Your task to perform on an android device: Go to display settings Image 0: 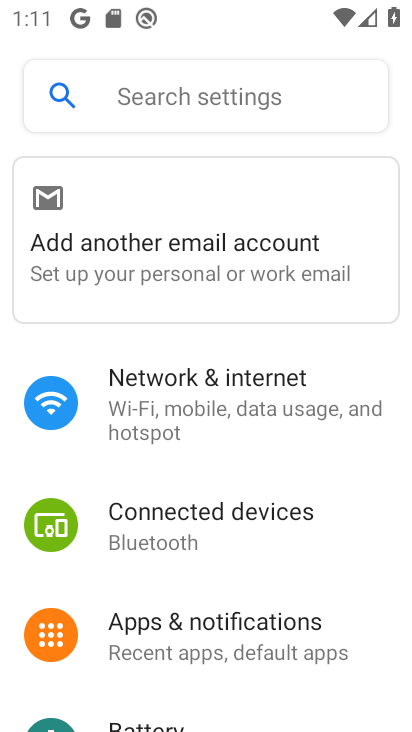
Step 0: drag from (221, 668) to (216, 139)
Your task to perform on an android device: Go to display settings Image 1: 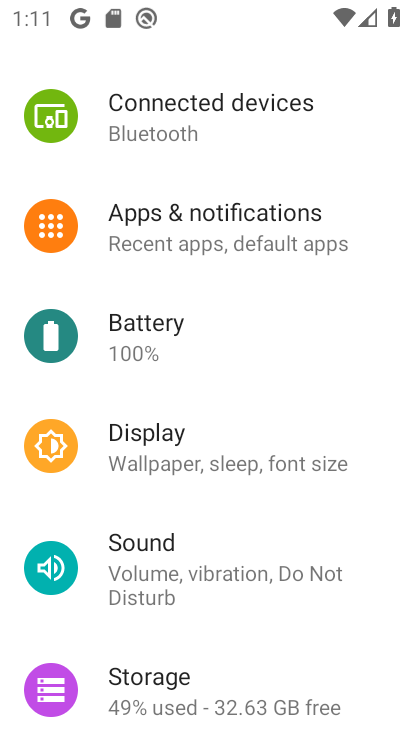
Step 1: click (156, 440)
Your task to perform on an android device: Go to display settings Image 2: 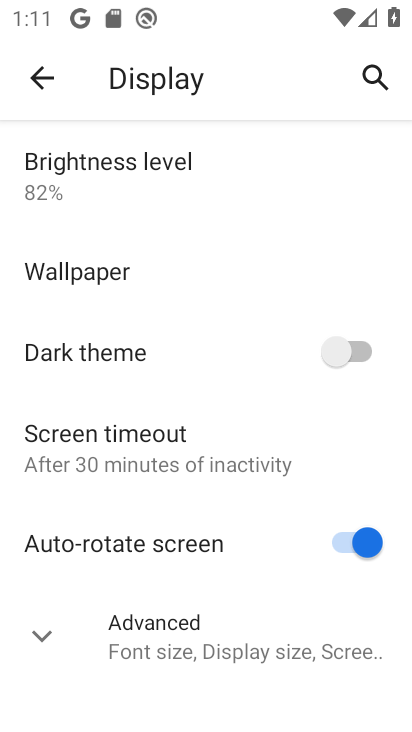
Step 2: task complete